Your task to perform on an android device: open app "Google Keep" Image 0: 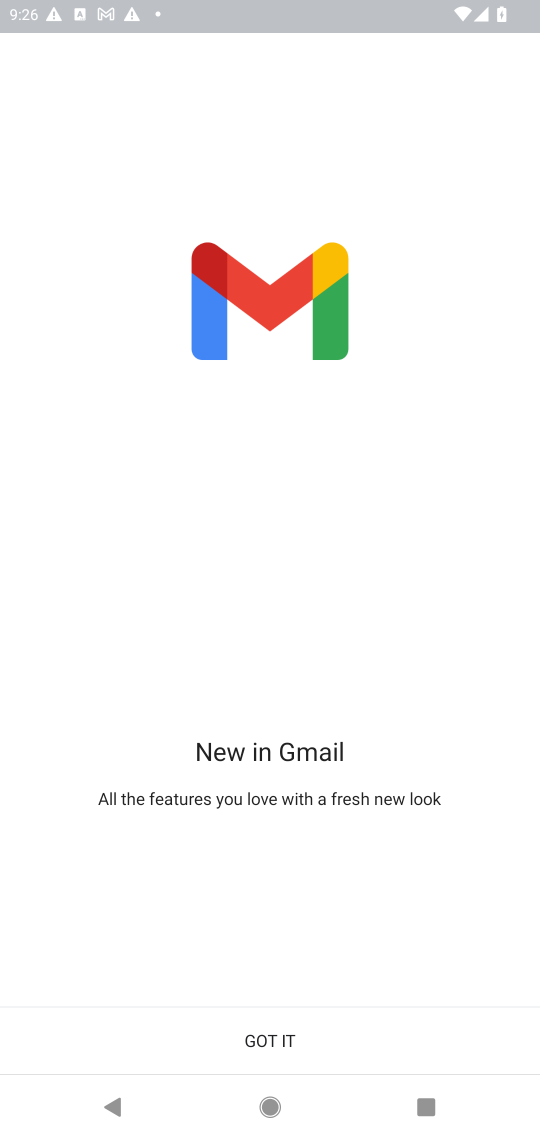
Step 0: press home button
Your task to perform on an android device: open app "Google Keep" Image 1: 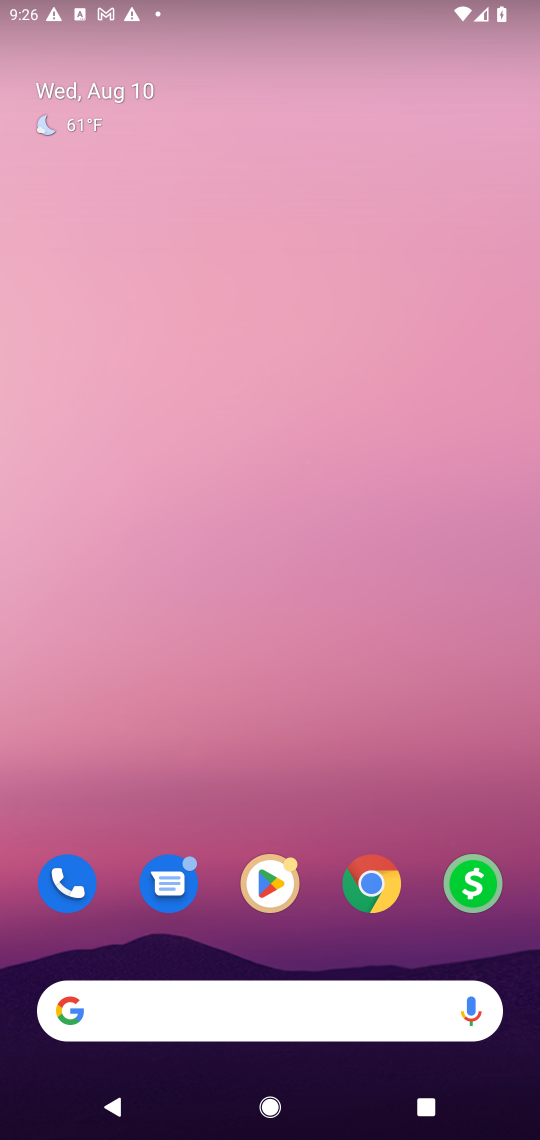
Step 1: click (260, 881)
Your task to perform on an android device: open app "Google Keep" Image 2: 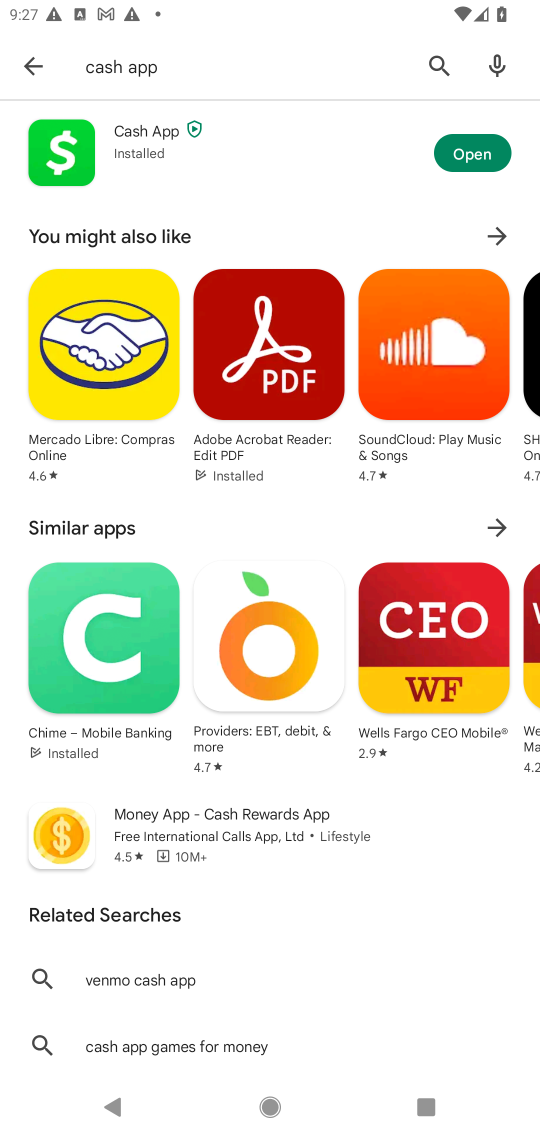
Step 2: click (429, 55)
Your task to perform on an android device: open app "Google Keep" Image 3: 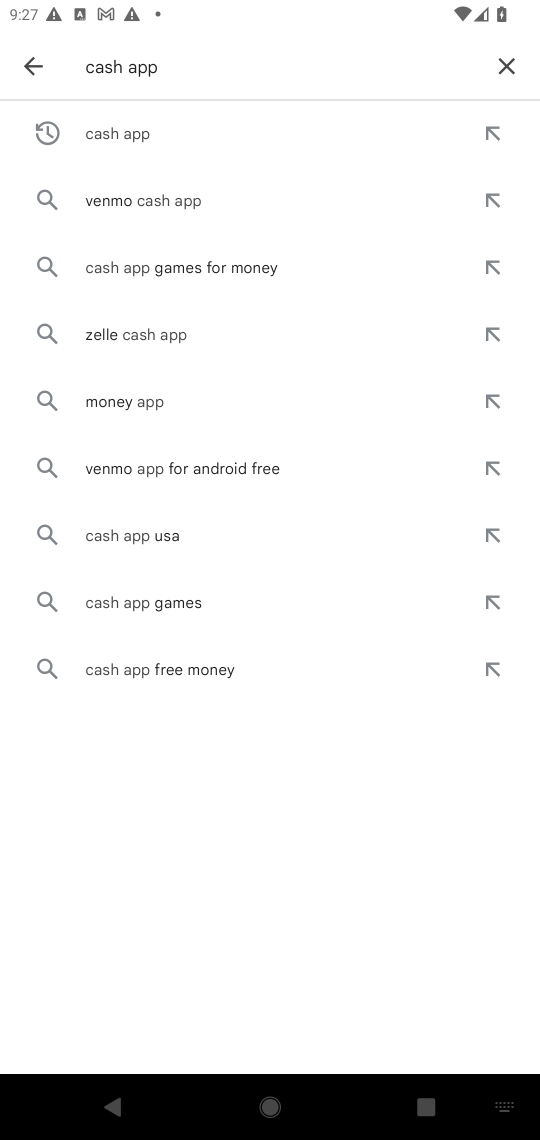
Step 3: click (502, 59)
Your task to perform on an android device: open app "Google Keep" Image 4: 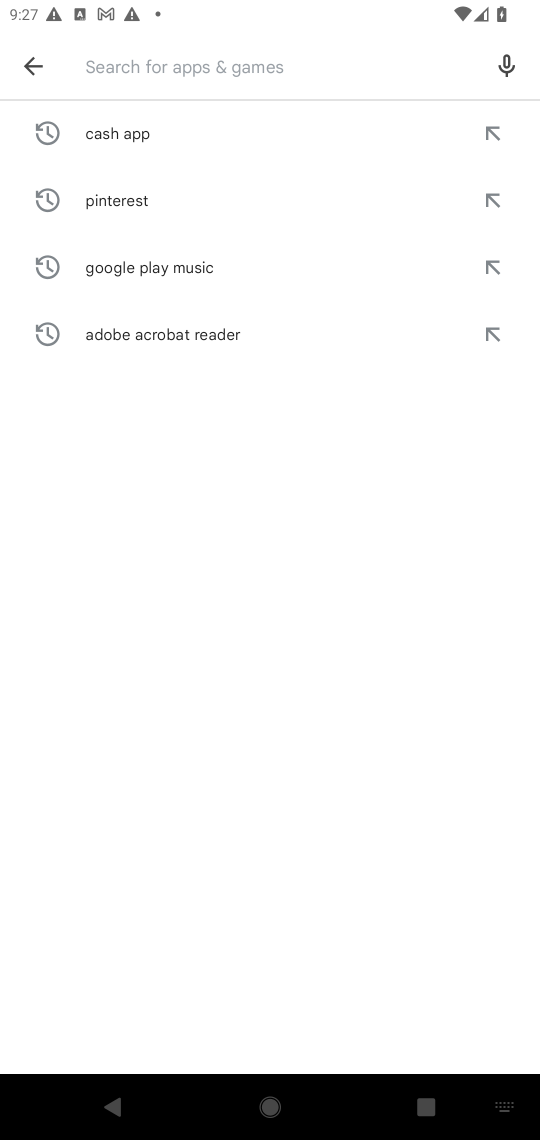
Step 4: type "Google Keep"
Your task to perform on an android device: open app "Google Keep" Image 5: 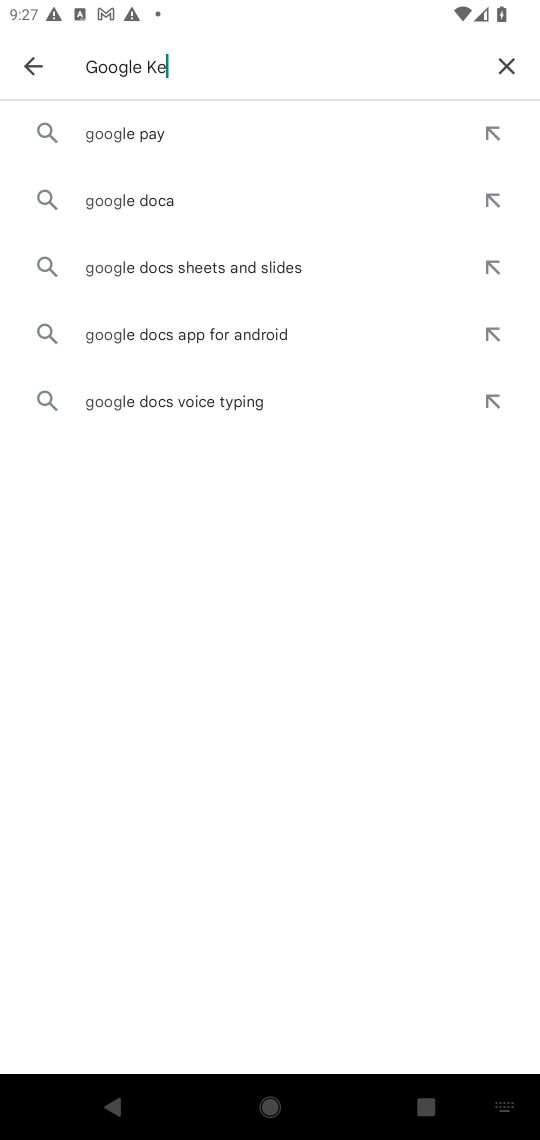
Step 5: type ""
Your task to perform on an android device: open app "Google Keep" Image 6: 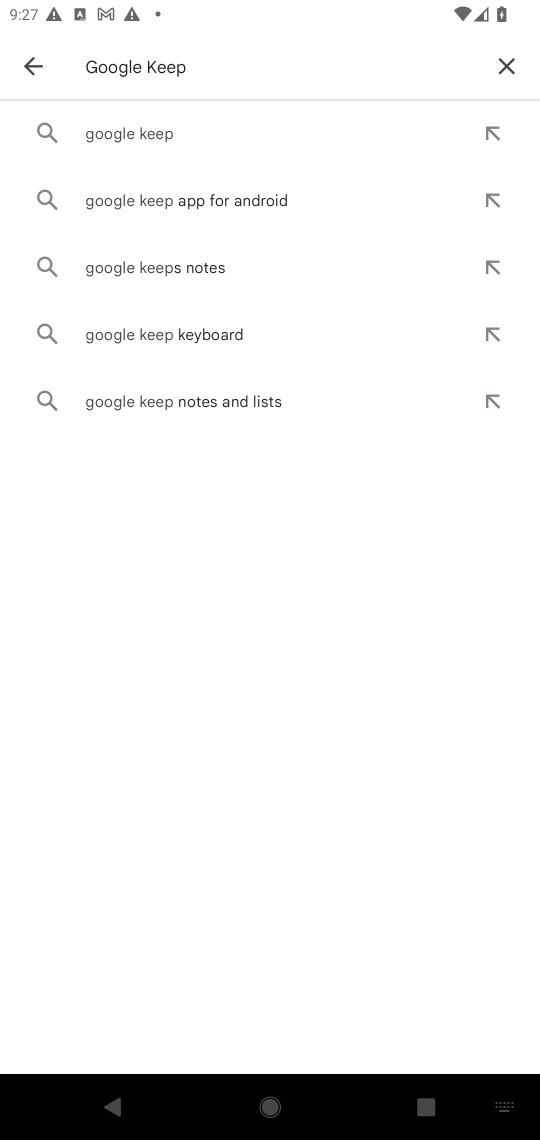
Step 6: click (144, 128)
Your task to perform on an android device: open app "Google Keep" Image 7: 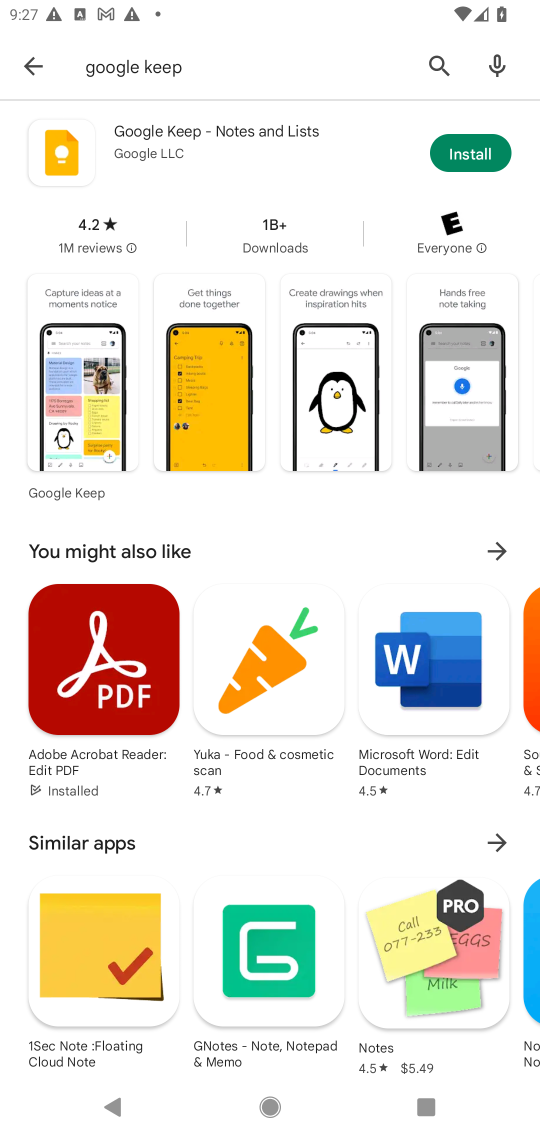
Step 7: task complete